Your task to perform on an android device: Open the stopwatch Image 0: 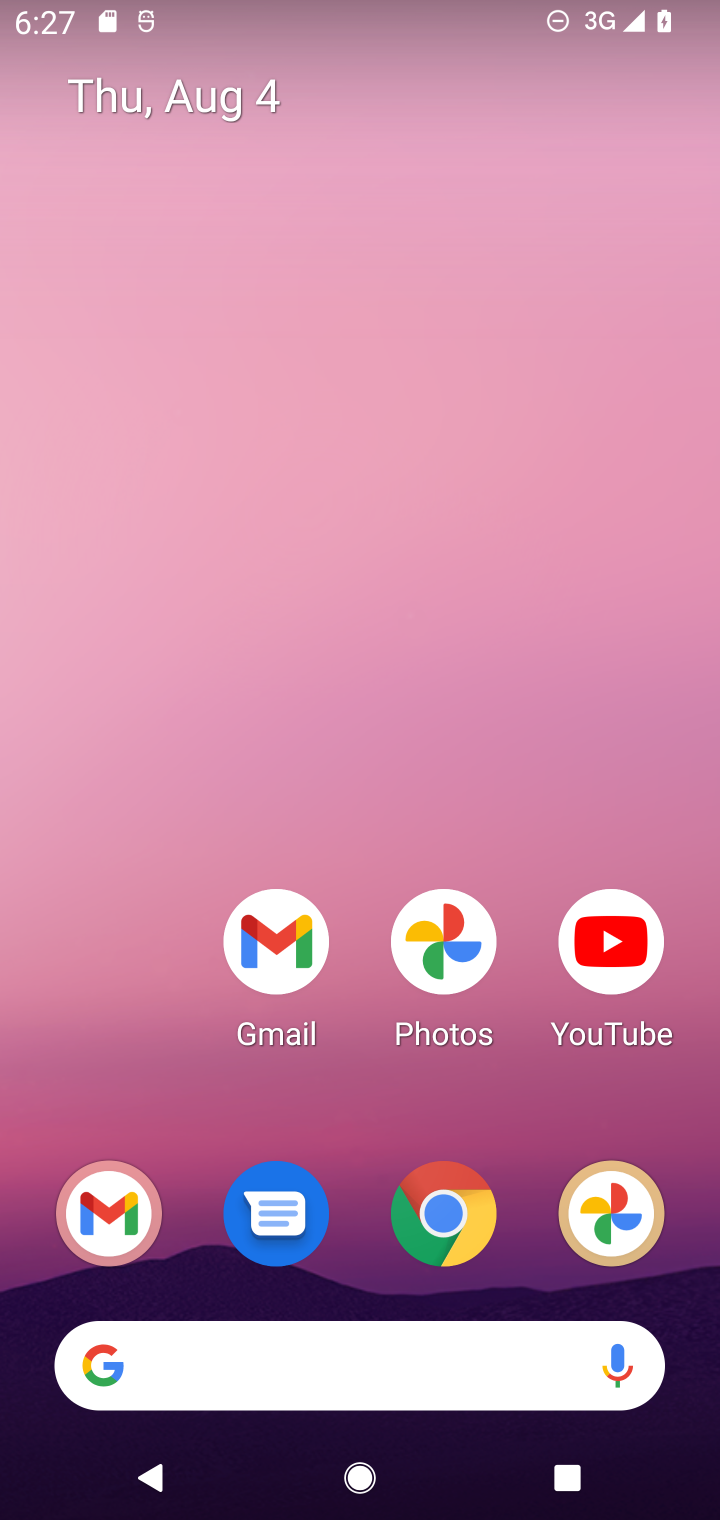
Step 0: press home button
Your task to perform on an android device: Open the stopwatch Image 1: 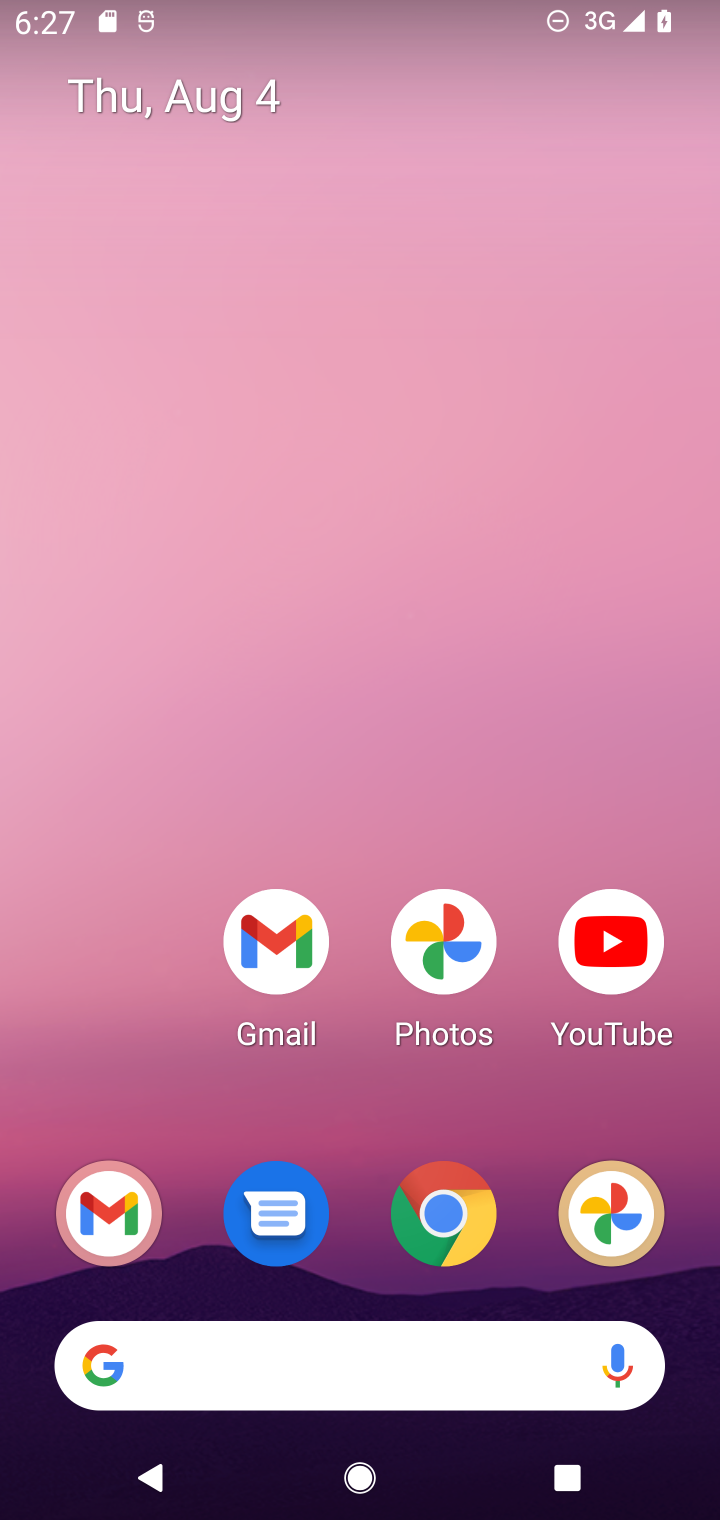
Step 1: drag from (178, 1129) to (129, 330)
Your task to perform on an android device: Open the stopwatch Image 2: 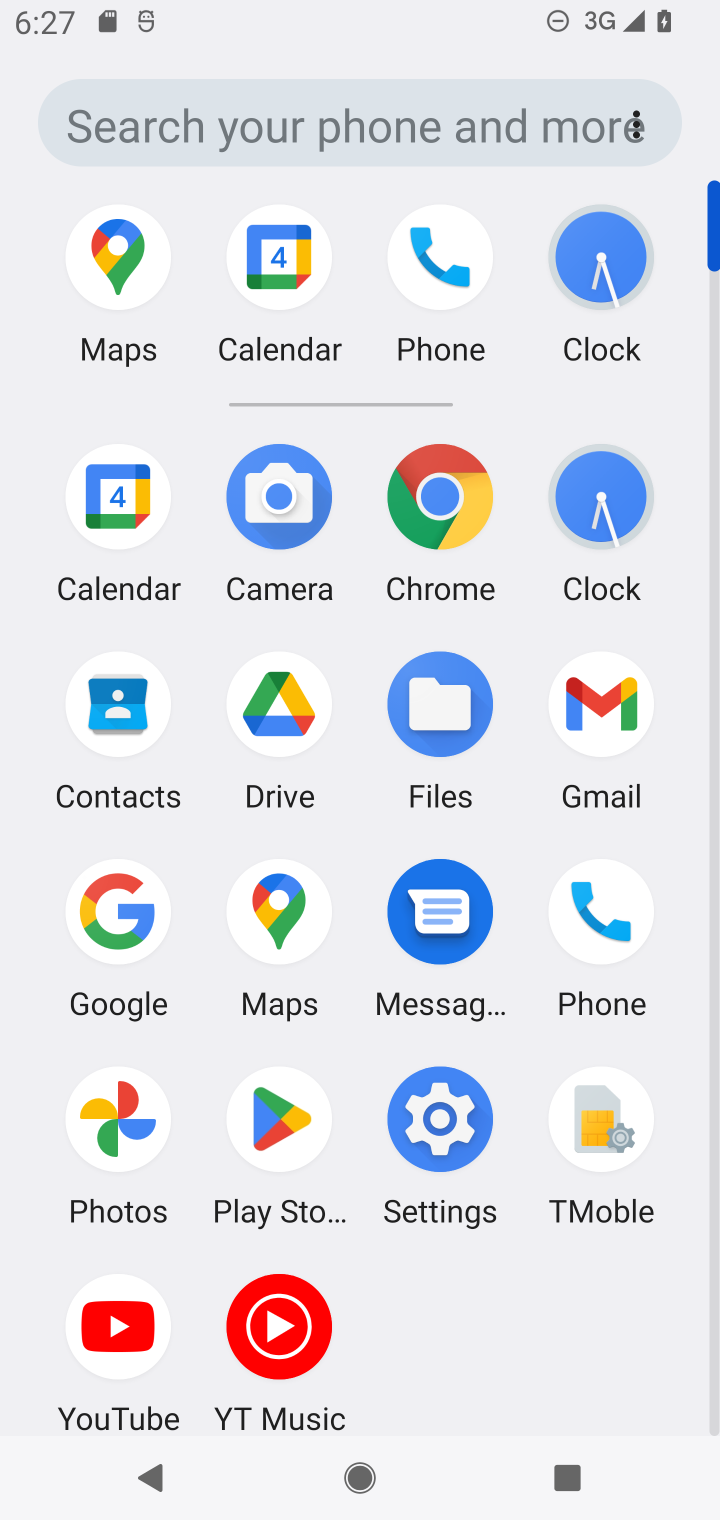
Step 2: click (618, 513)
Your task to perform on an android device: Open the stopwatch Image 3: 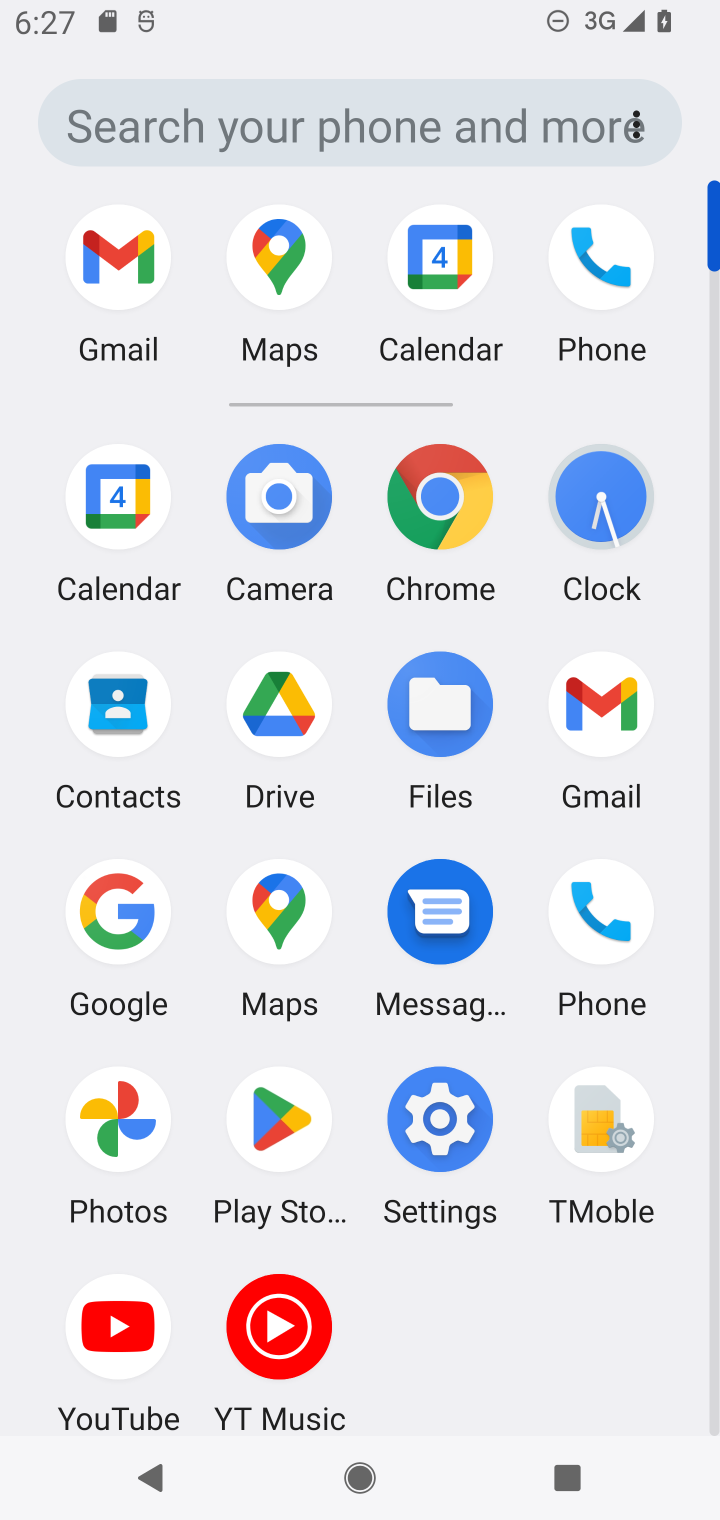
Step 3: click (613, 497)
Your task to perform on an android device: Open the stopwatch Image 4: 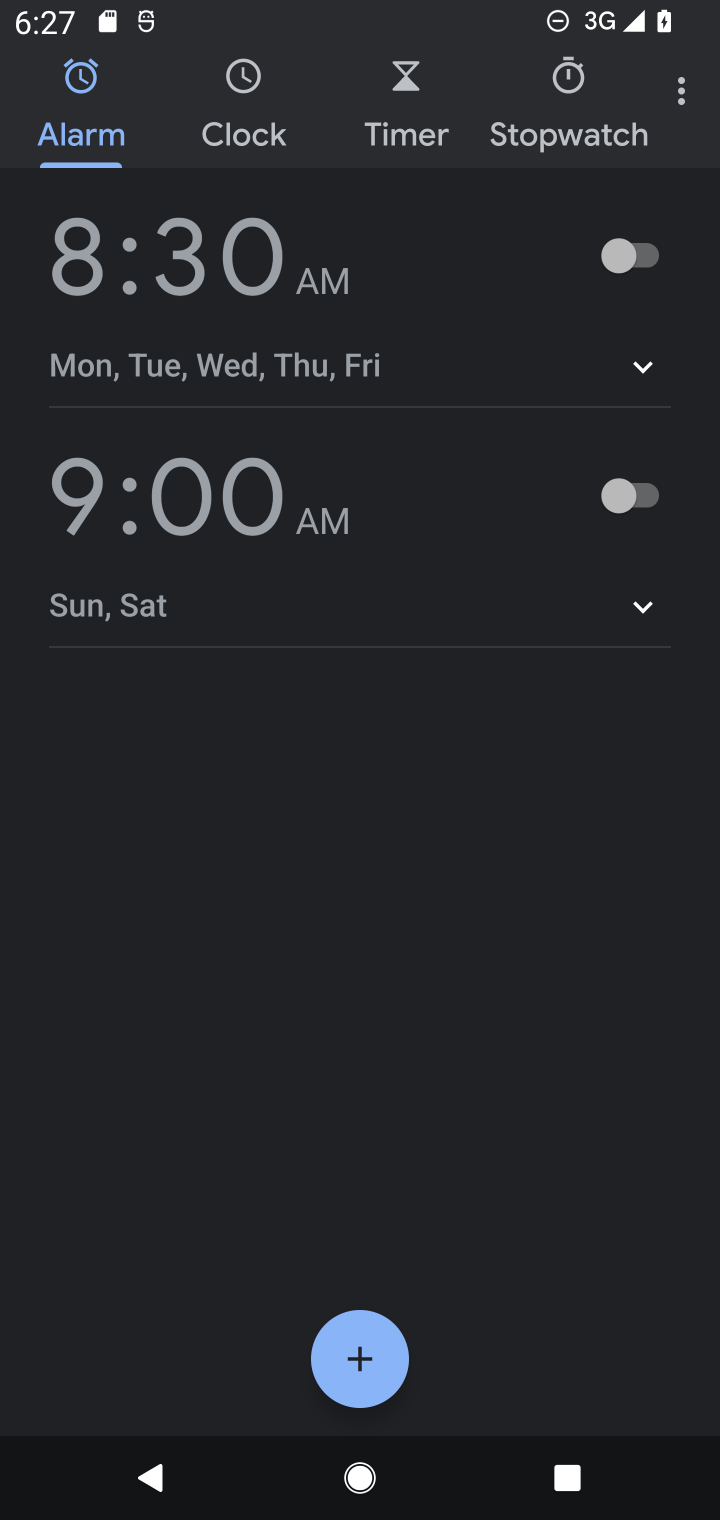
Step 4: click (573, 97)
Your task to perform on an android device: Open the stopwatch Image 5: 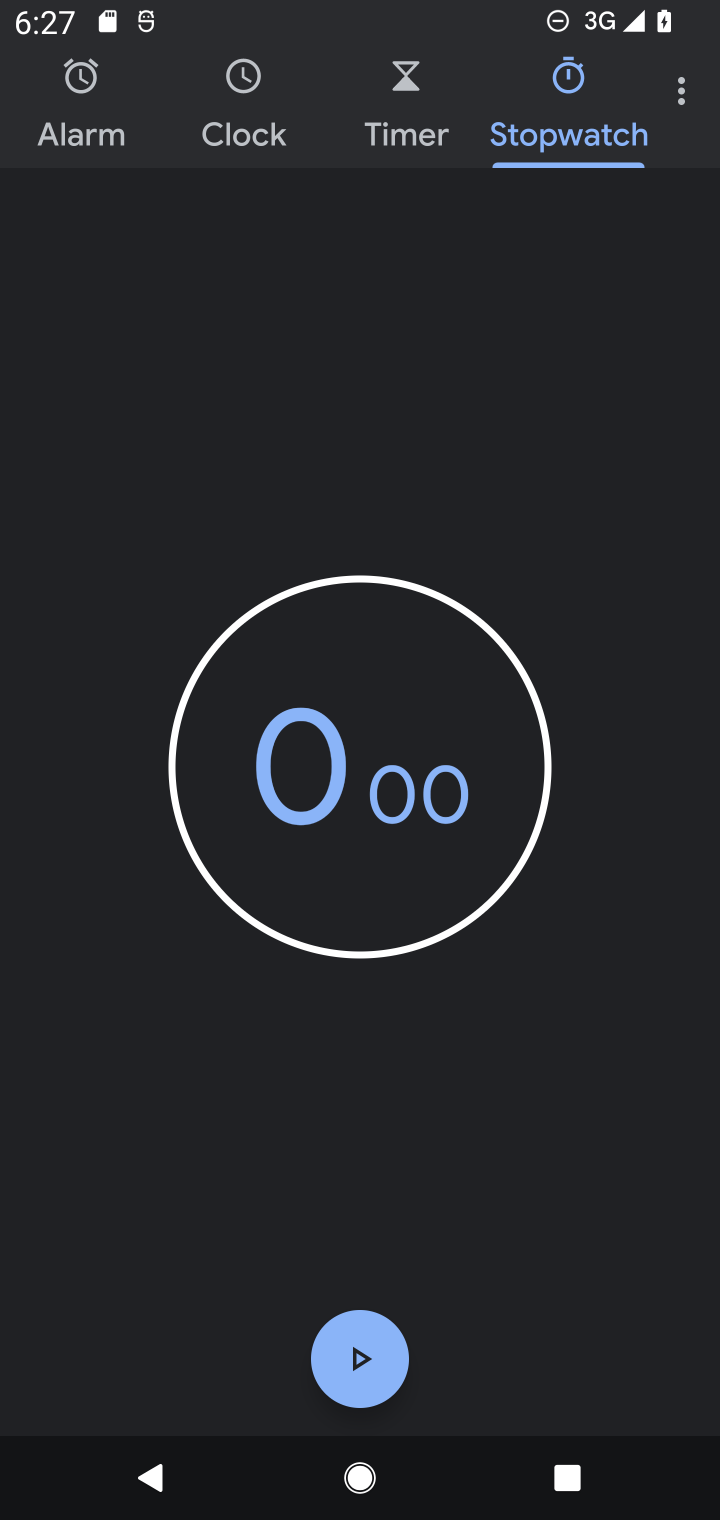
Step 5: task complete